Your task to perform on an android device: find snoozed emails in the gmail app Image 0: 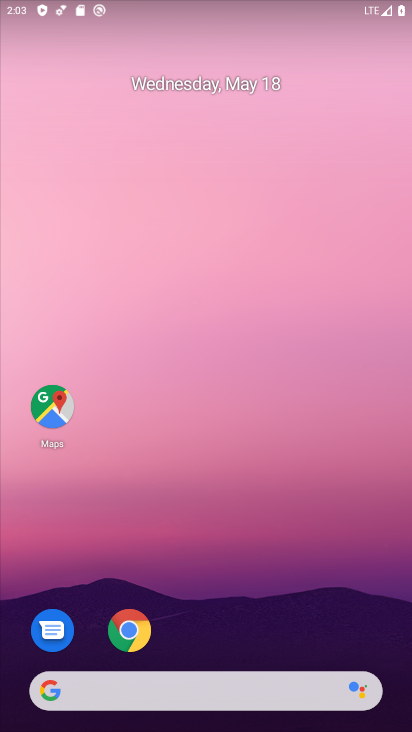
Step 0: drag from (238, 649) to (240, 195)
Your task to perform on an android device: find snoozed emails in the gmail app Image 1: 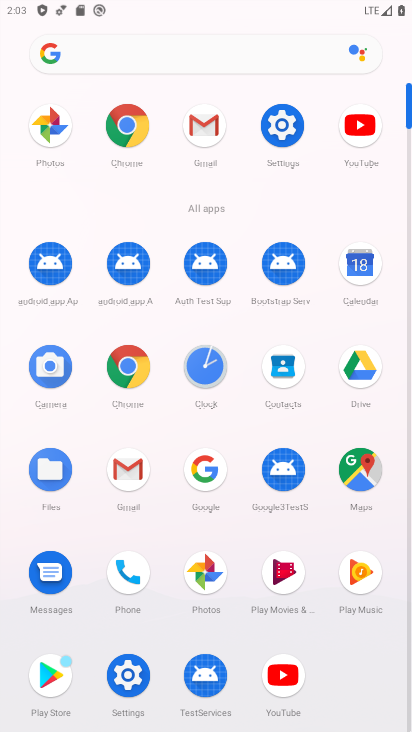
Step 1: click (215, 139)
Your task to perform on an android device: find snoozed emails in the gmail app Image 2: 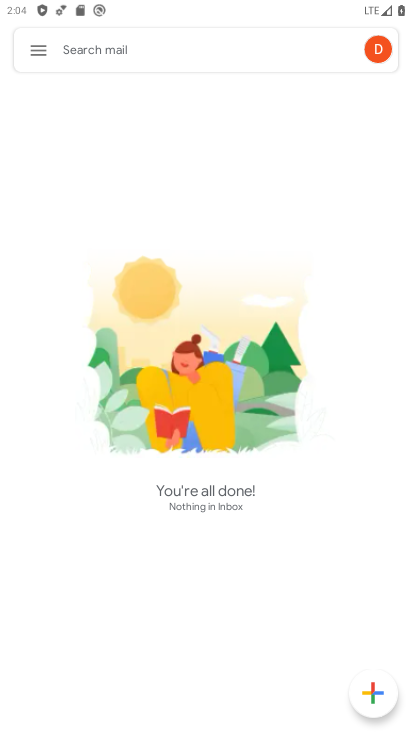
Step 2: click (39, 62)
Your task to perform on an android device: find snoozed emails in the gmail app Image 3: 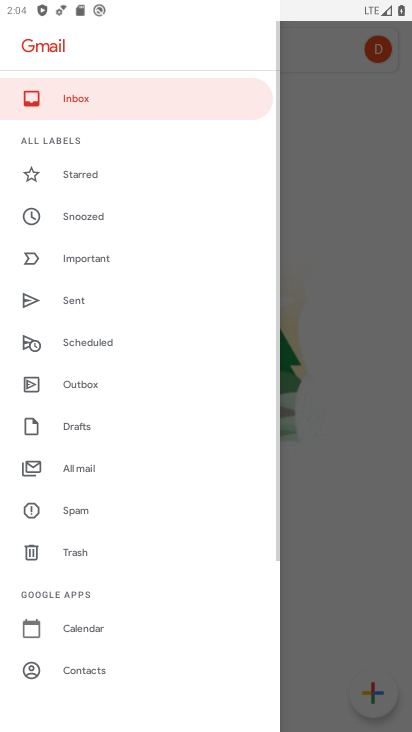
Step 3: click (120, 221)
Your task to perform on an android device: find snoozed emails in the gmail app Image 4: 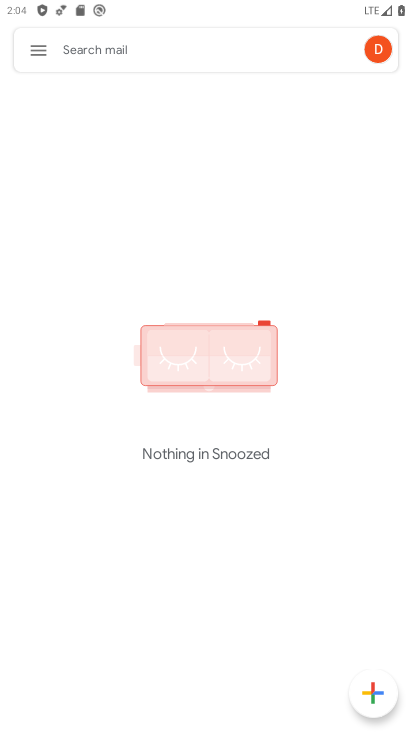
Step 4: task complete